Your task to perform on an android device: turn pop-ups on in chrome Image 0: 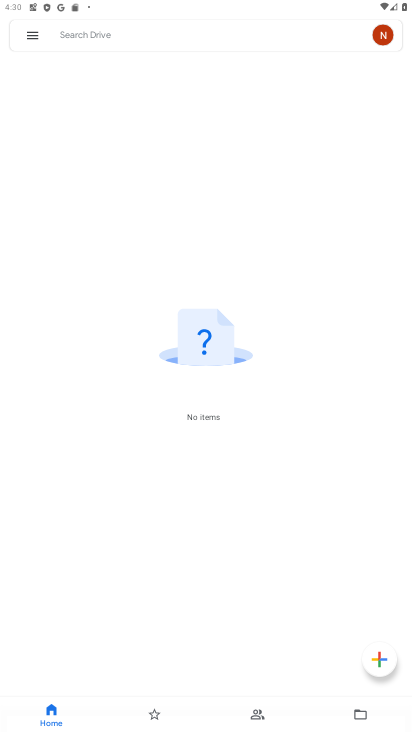
Step 0: press home button
Your task to perform on an android device: turn pop-ups on in chrome Image 1: 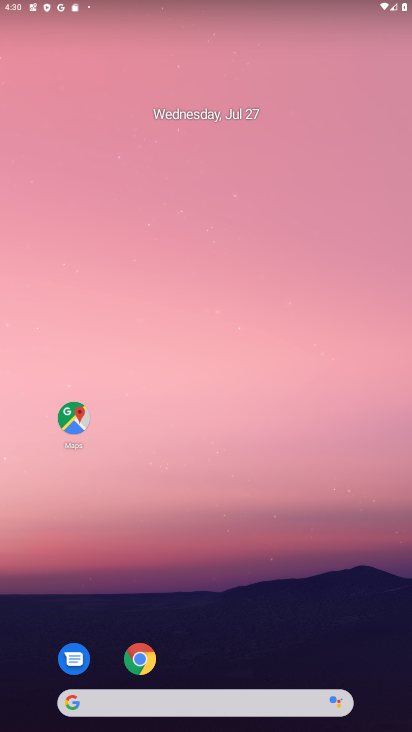
Step 1: drag from (298, 630) to (193, 81)
Your task to perform on an android device: turn pop-ups on in chrome Image 2: 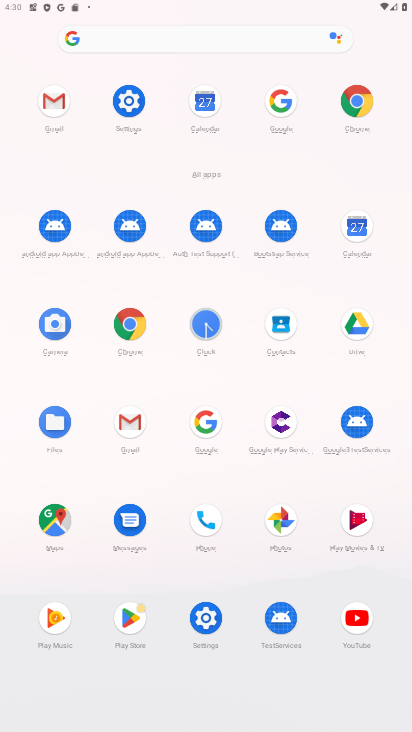
Step 2: click (352, 104)
Your task to perform on an android device: turn pop-ups on in chrome Image 3: 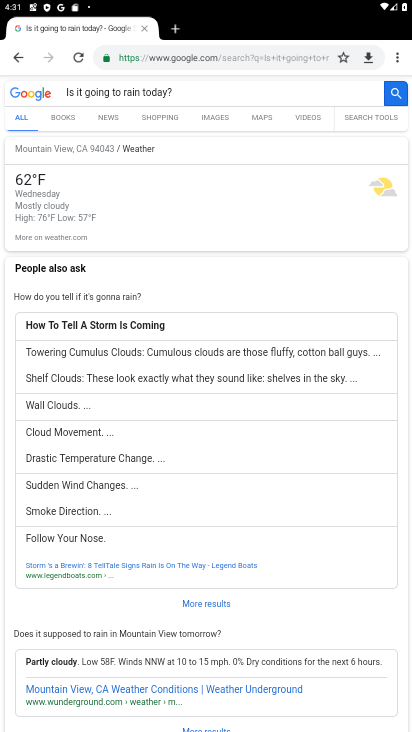
Step 3: click (400, 56)
Your task to perform on an android device: turn pop-ups on in chrome Image 4: 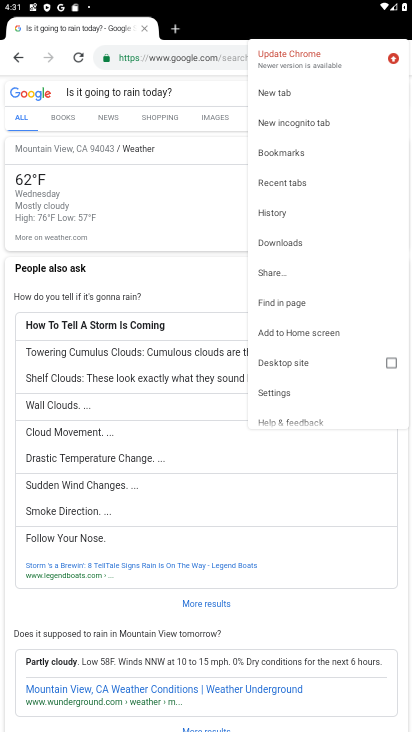
Step 4: click (281, 388)
Your task to perform on an android device: turn pop-ups on in chrome Image 5: 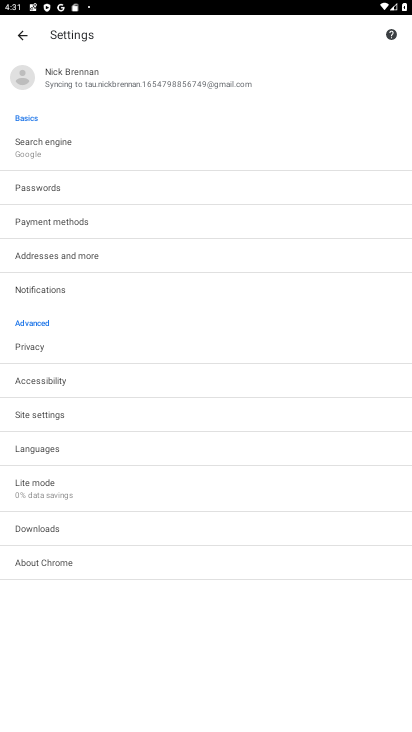
Step 5: click (90, 421)
Your task to perform on an android device: turn pop-ups on in chrome Image 6: 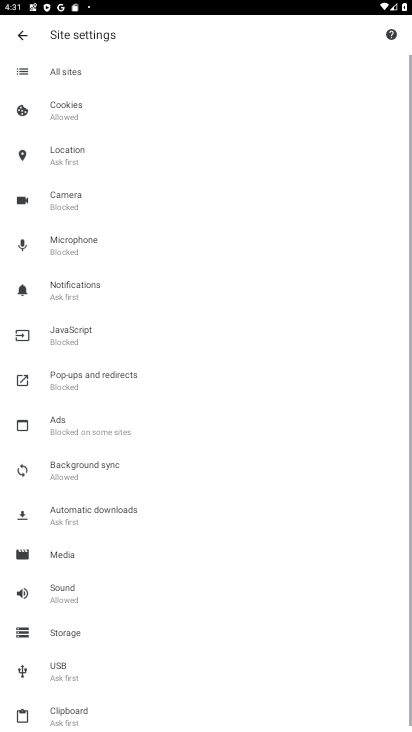
Step 6: click (138, 365)
Your task to perform on an android device: turn pop-ups on in chrome Image 7: 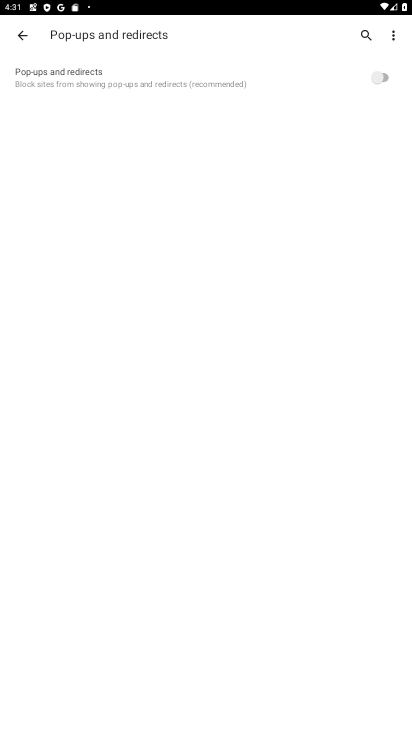
Step 7: click (381, 89)
Your task to perform on an android device: turn pop-ups on in chrome Image 8: 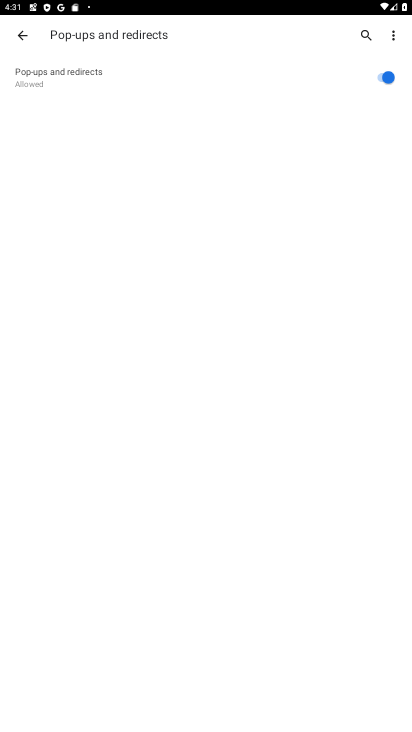
Step 8: task complete